Your task to perform on an android device: toggle notifications settings in the gmail app Image 0: 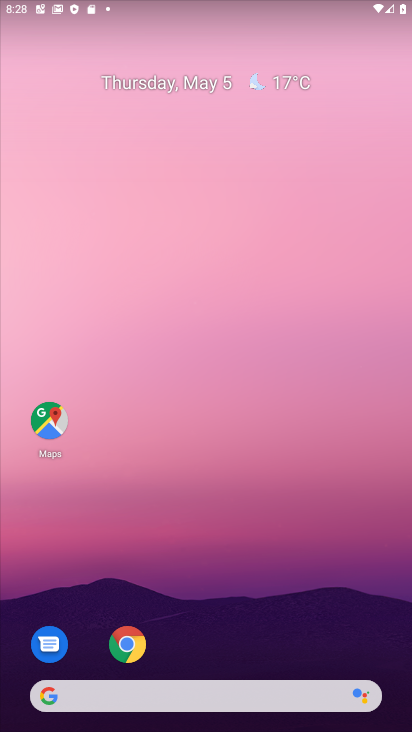
Step 0: drag from (267, 586) to (167, 17)
Your task to perform on an android device: toggle notifications settings in the gmail app Image 1: 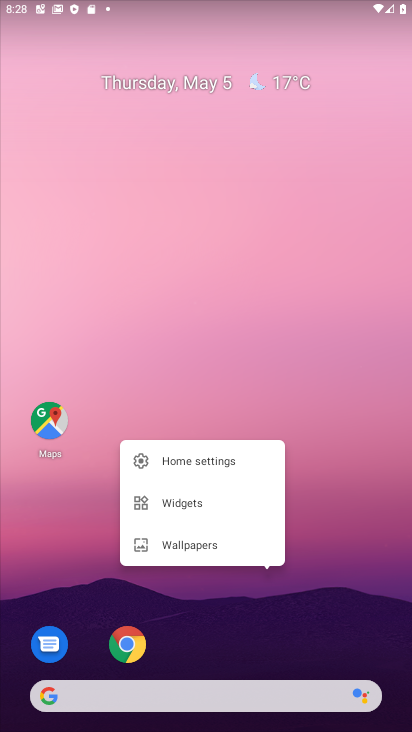
Step 1: click (317, 572)
Your task to perform on an android device: toggle notifications settings in the gmail app Image 2: 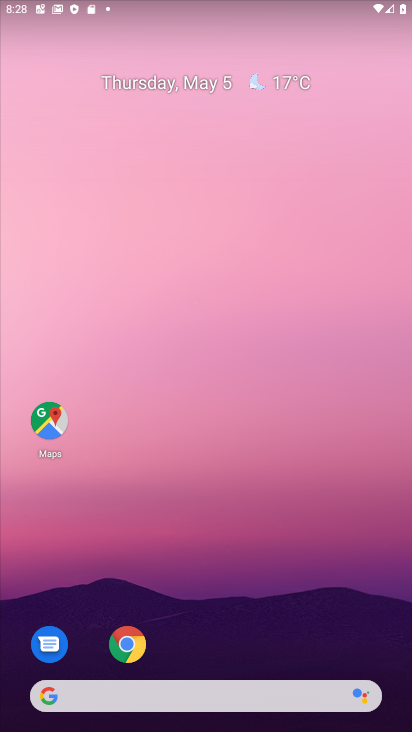
Step 2: drag from (253, 641) to (189, 201)
Your task to perform on an android device: toggle notifications settings in the gmail app Image 3: 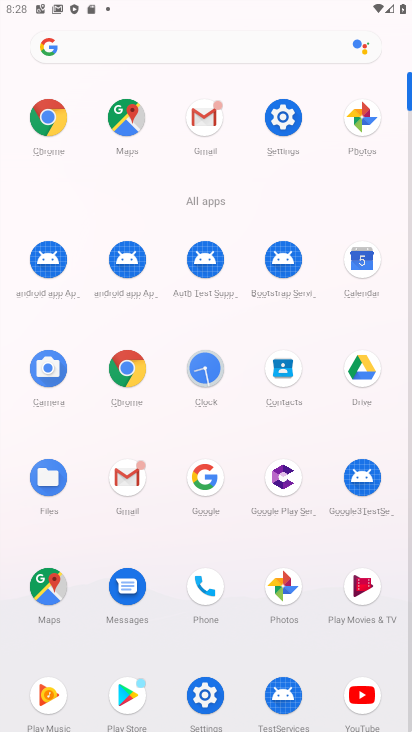
Step 3: click (204, 117)
Your task to perform on an android device: toggle notifications settings in the gmail app Image 4: 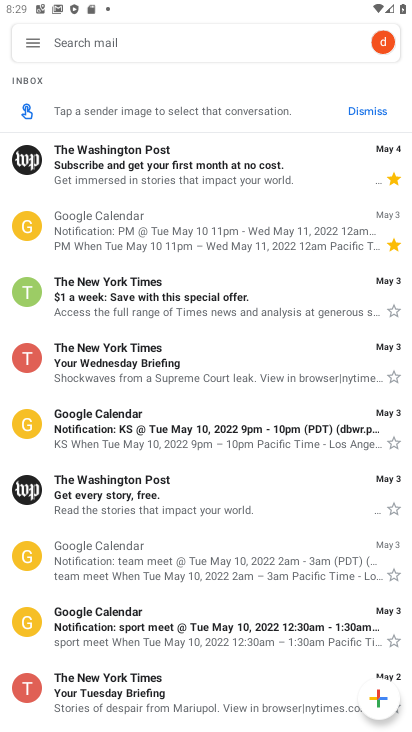
Step 4: click (35, 48)
Your task to perform on an android device: toggle notifications settings in the gmail app Image 5: 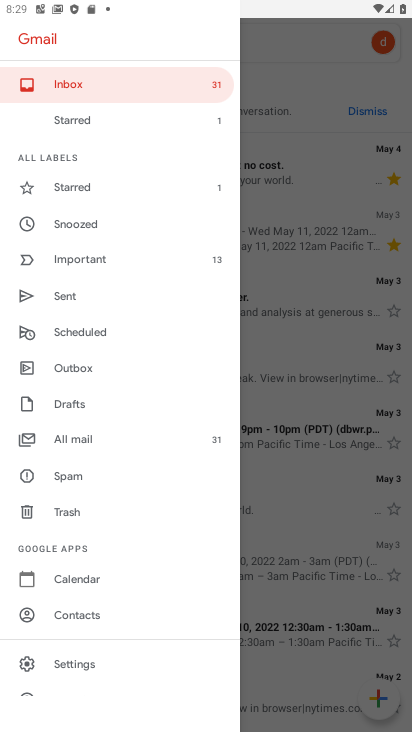
Step 5: click (95, 661)
Your task to perform on an android device: toggle notifications settings in the gmail app Image 6: 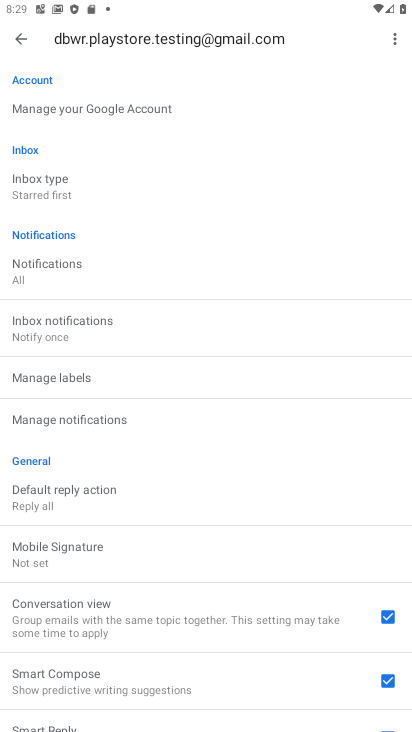
Step 6: click (239, 413)
Your task to perform on an android device: toggle notifications settings in the gmail app Image 7: 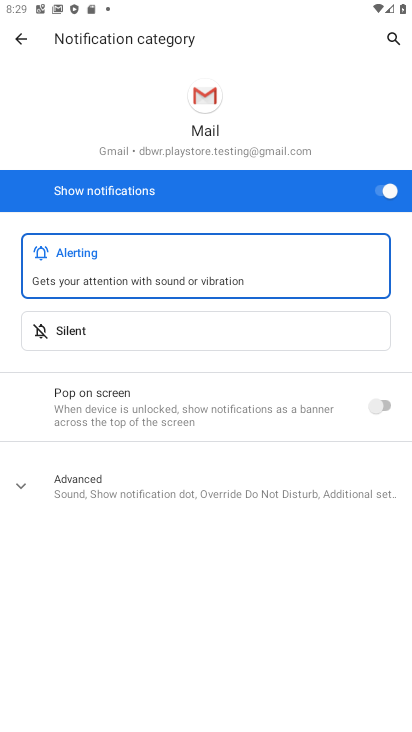
Step 7: click (350, 335)
Your task to perform on an android device: toggle notifications settings in the gmail app Image 8: 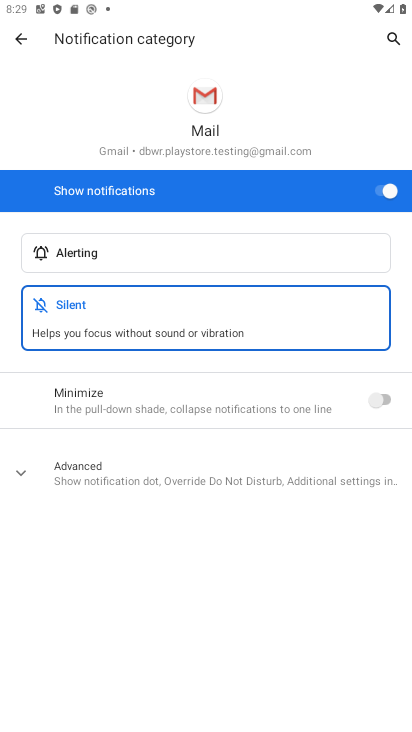
Step 8: click (365, 397)
Your task to perform on an android device: toggle notifications settings in the gmail app Image 9: 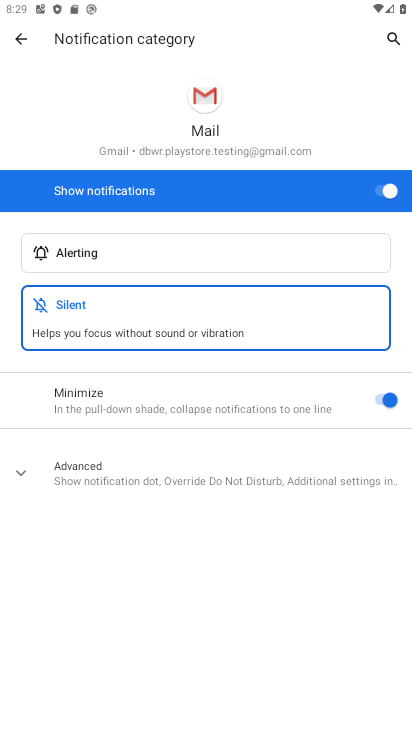
Step 9: task complete